Your task to perform on an android device: see creations saved in the google photos Image 0: 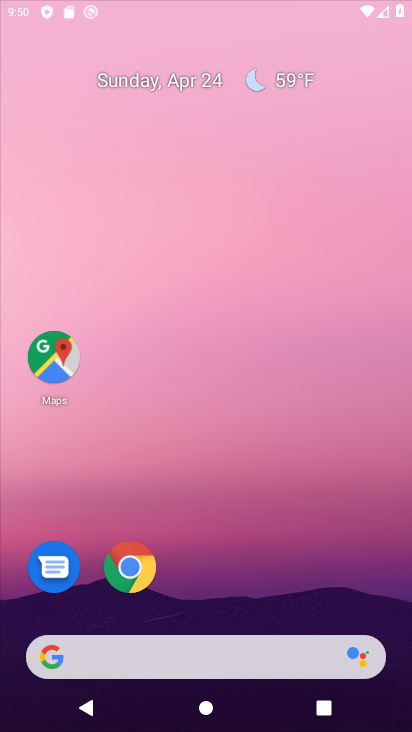
Step 0: click (352, 194)
Your task to perform on an android device: see creations saved in the google photos Image 1: 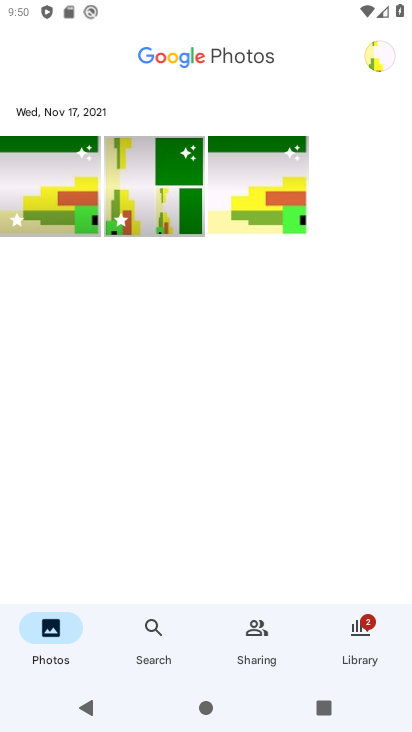
Step 1: click (46, 169)
Your task to perform on an android device: see creations saved in the google photos Image 2: 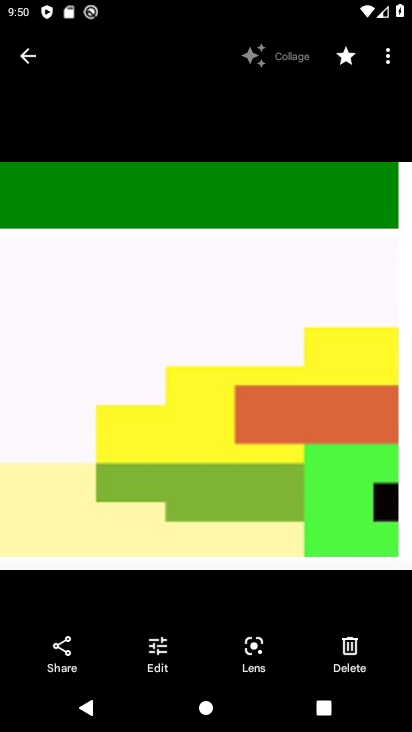
Step 2: click (34, 49)
Your task to perform on an android device: see creations saved in the google photos Image 3: 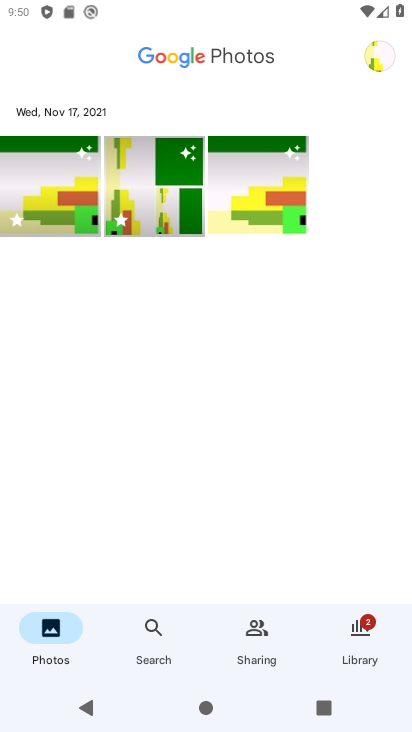
Step 3: click (173, 183)
Your task to perform on an android device: see creations saved in the google photos Image 4: 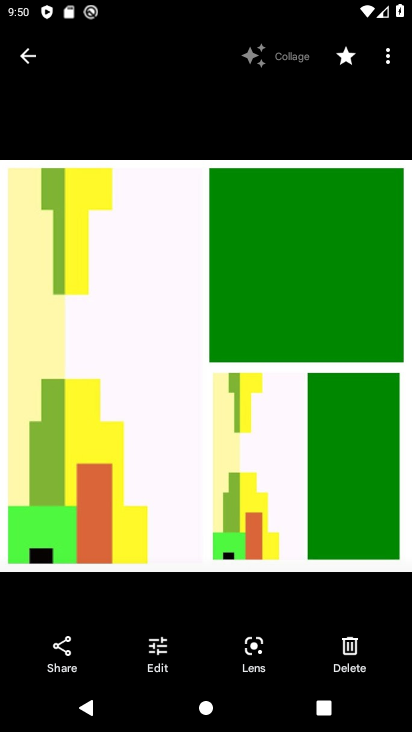
Step 4: click (16, 52)
Your task to perform on an android device: see creations saved in the google photos Image 5: 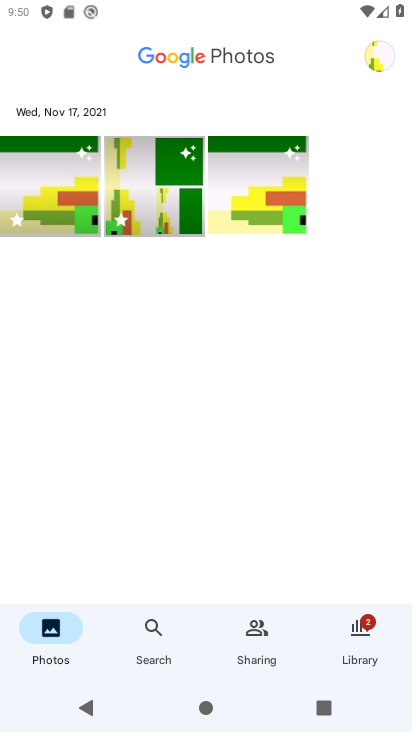
Step 5: click (247, 178)
Your task to perform on an android device: see creations saved in the google photos Image 6: 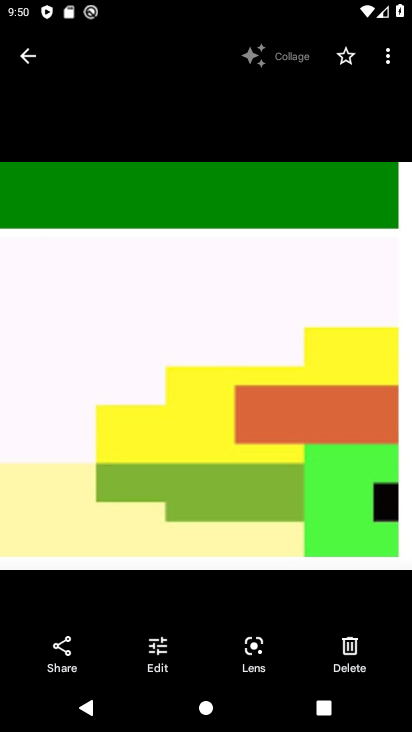
Step 6: click (33, 57)
Your task to perform on an android device: see creations saved in the google photos Image 7: 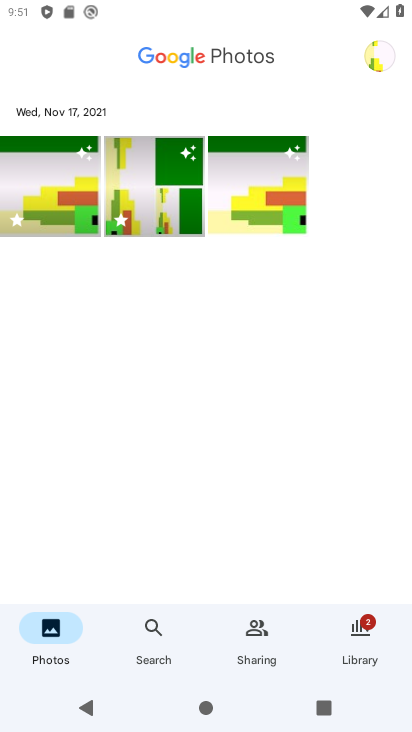
Step 7: task complete